Your task to perform on an android device: show emergency info Image 0: 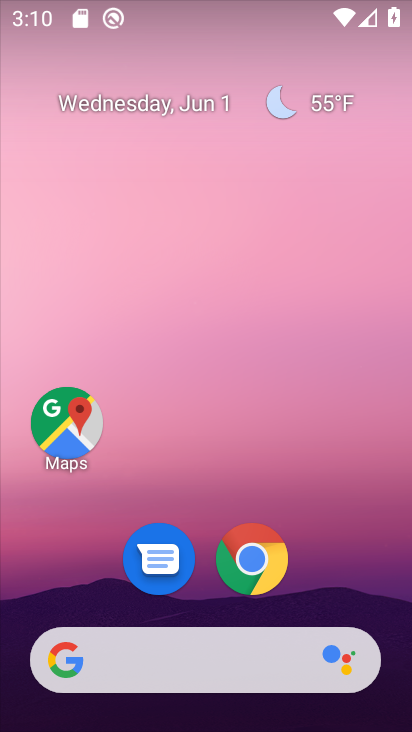
Step 0: drag from (192, 529) to (238, 5)
Your task to perform on an android device: show emergency info Image 1: 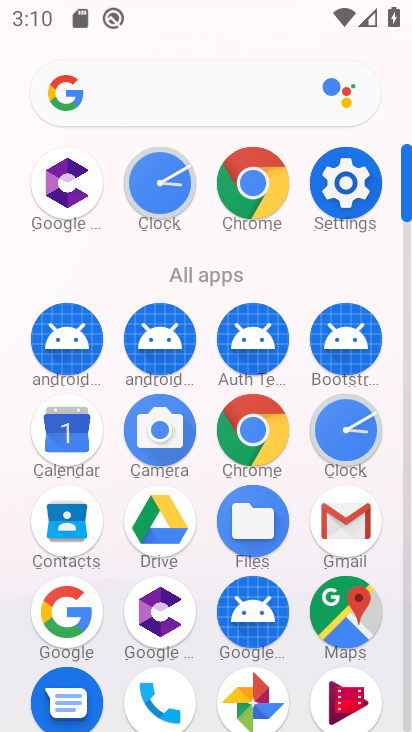
Step 1: click (362, 222)
Your task to perform on an android device: show emergency info Image 2: 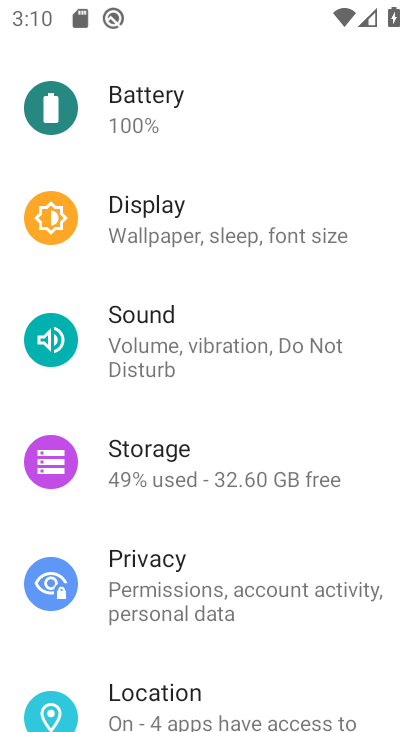
Step 2: drag from (187, 243) to (168, 550)
Your task to perform on an android device: show emergency info Image 3: 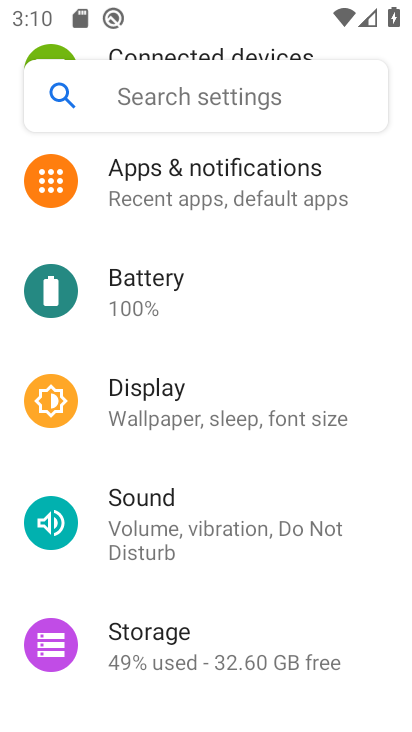
Step 3: drag from (204, 587) to (242, 179)
Your task to perform on an android device: show emergency info Image 4: 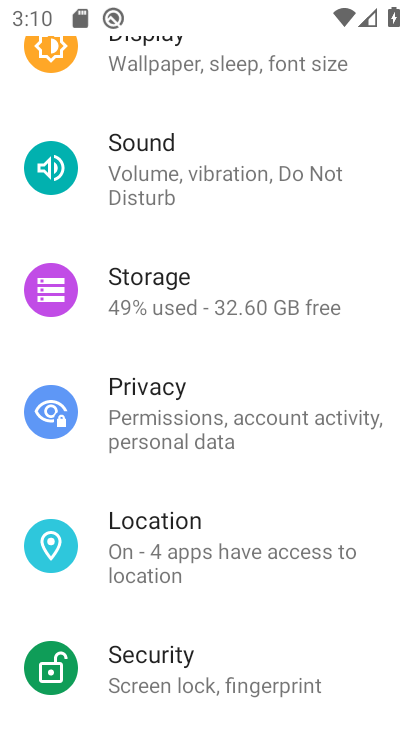
Step 4: drag from (210, 637) to (190, 203)
Your task to perform on an android device: show emergency info Image 5: 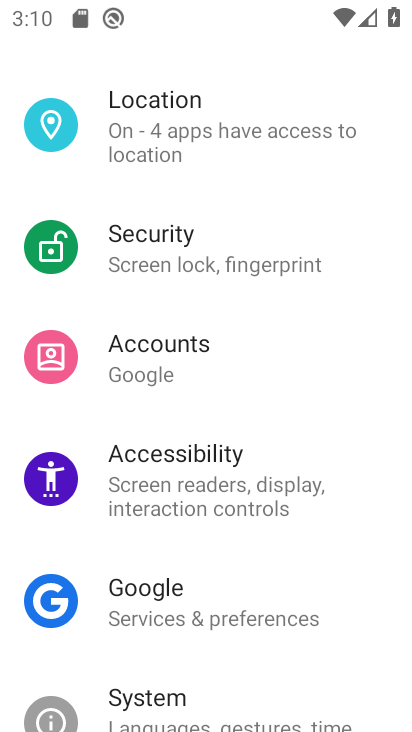
Step 5: drag from (206, 640) to (220, 229)
Your task to perform on an android device: show emergency info Image 6: 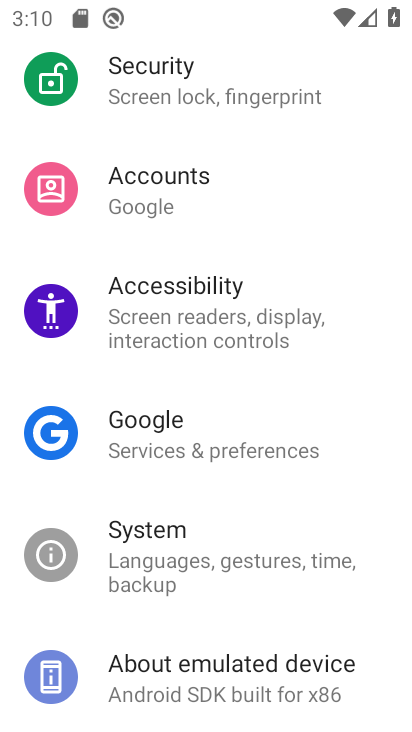
Step 6: click (231, 664)
Your task to perform on an android device: show emergency info Image 7: 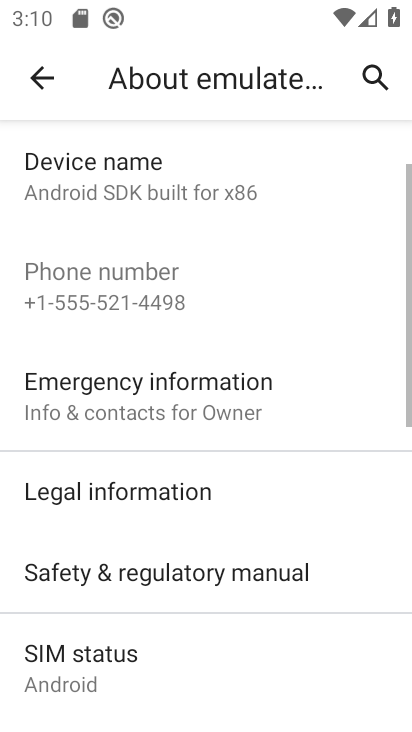
Step 7: click (231, 398)
Your task to perform on an android device: show emergency info Image 8: 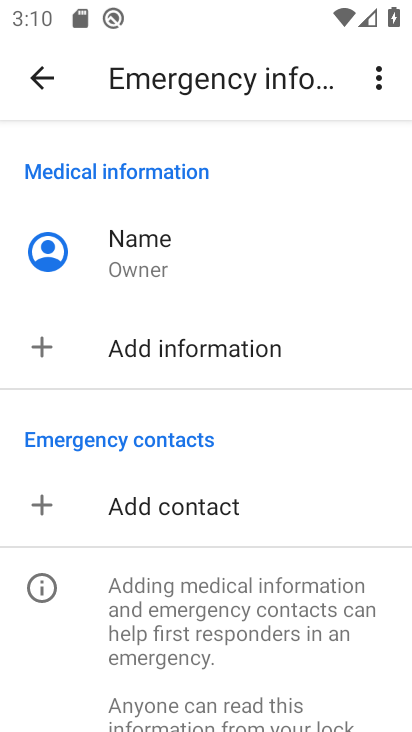
Step 8: task complete